Your task to perform on an android device: Show me popular videos on Youtube Image 0: 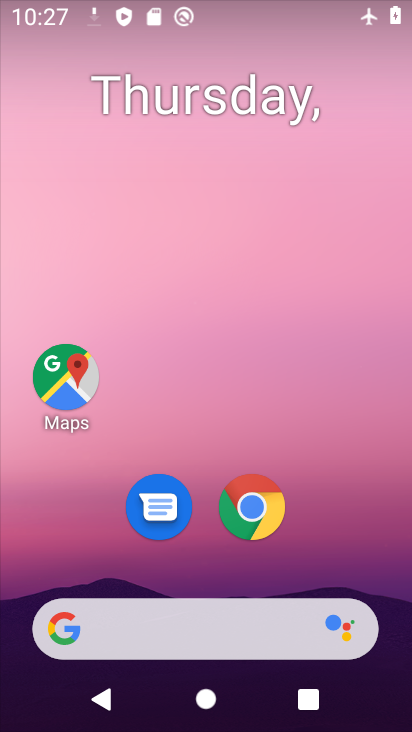
Step 0: drag from (333, 500) to (243, 18)
Your task to perform on an android device: Show me popular videos on Youtube Image 1: 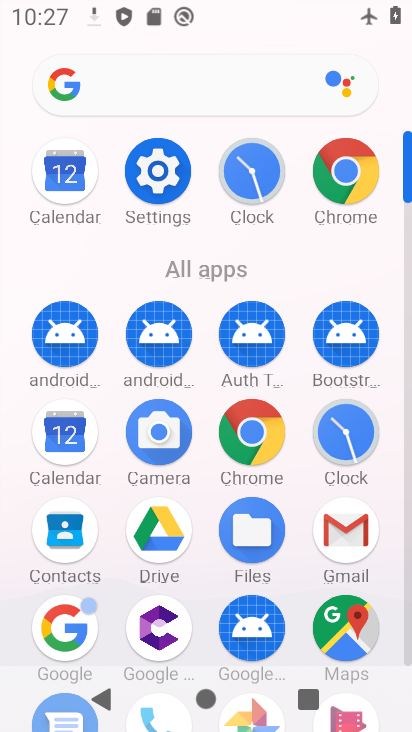
Step 1: drag from (5, 643) to (15, 338)
Your task to perform on an android device: Show me popular videos on Youtube Image 2: 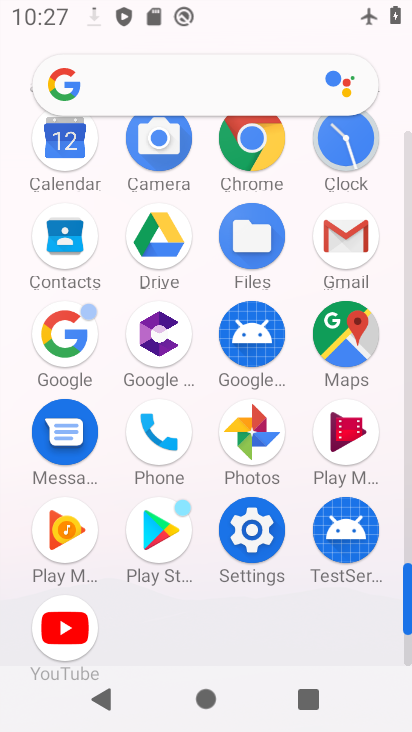
Step 2: click (60, 620)
Your task to perform on an android device: Show me popular videos on Youtube Image 3: 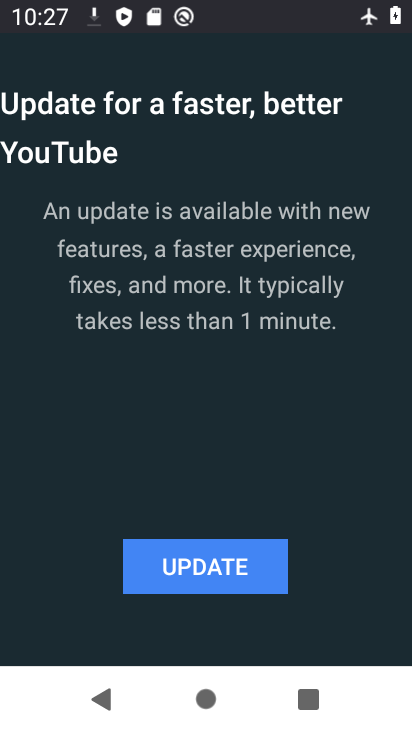
Step 3: click (208, 555)
Your task to perform on an android device: Show me popular videos on Youtube Image 4: 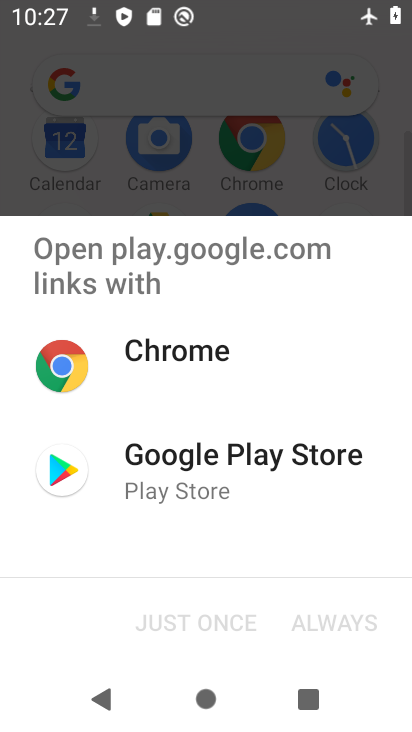
Step 4: click (214, 455)
Your task to perform on an android device: Show me popular videos on Youtube Image 5: 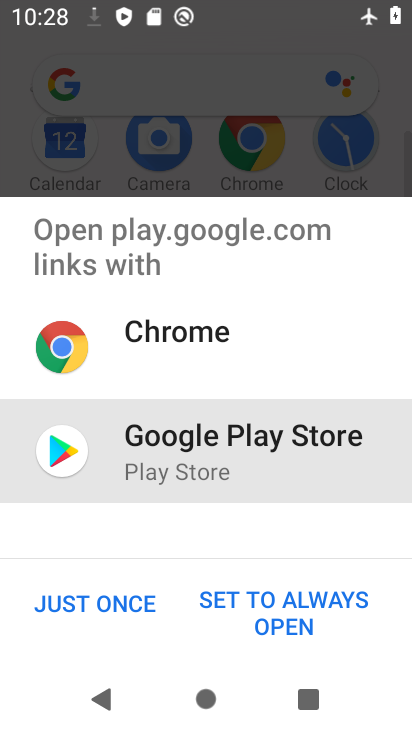
Step 5: click (108, 612)
Your task to perform on an android device: Show me popular videos on Youtube Image 6: 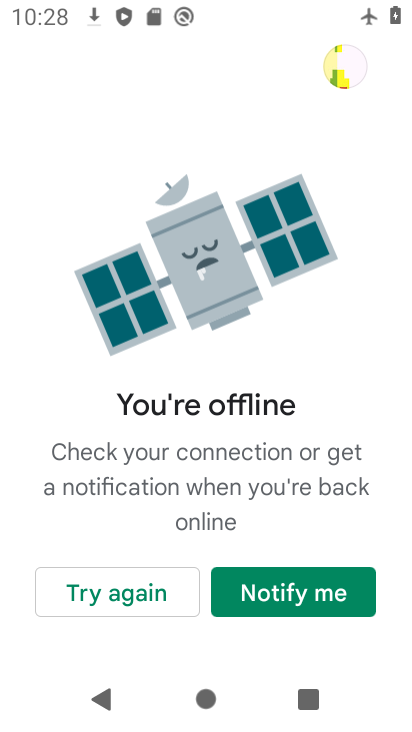
Step 6: click (112, 589)
Your task to perform on an android device: Show me popular videos on Youtube Image 7: 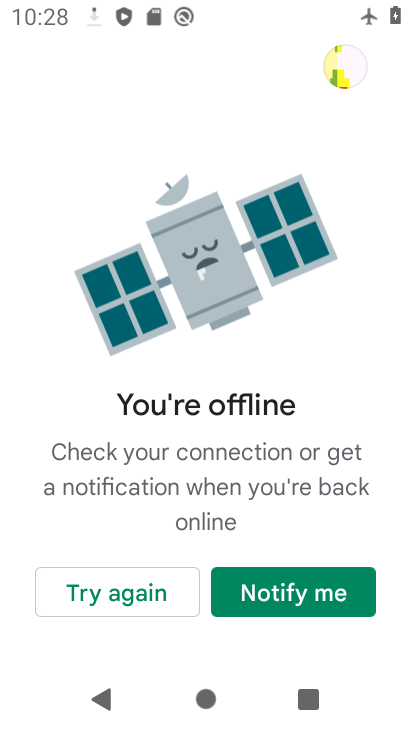
Step 7: task complete